Your task to perform on an android device: Open calendar and show me the third week of next month Image 0: 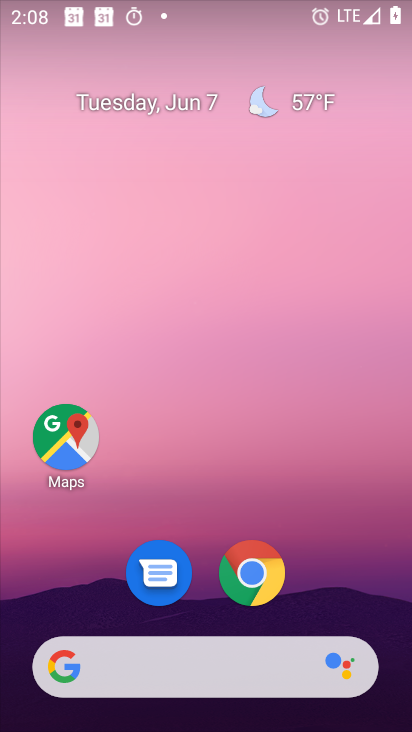
Step 0: drag from (341, 600) to (355, 122)
Your task to perform on an android device: Open calendar and show me the third week of next month Image 1: 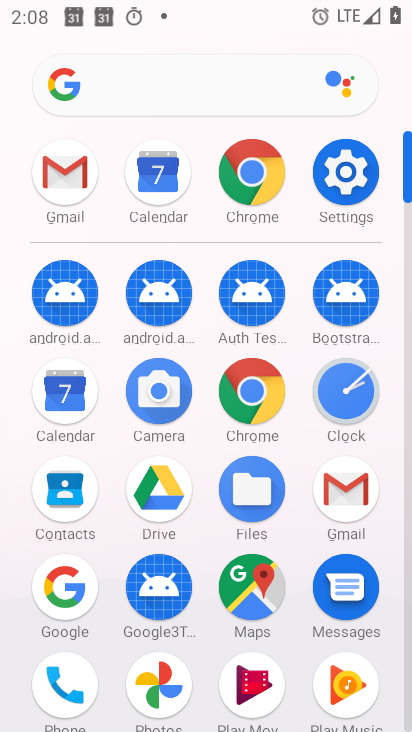
Step 1: click (148, 187)
Your task to perform on an android device: Open calendar and show me the third week of next month Image 2: 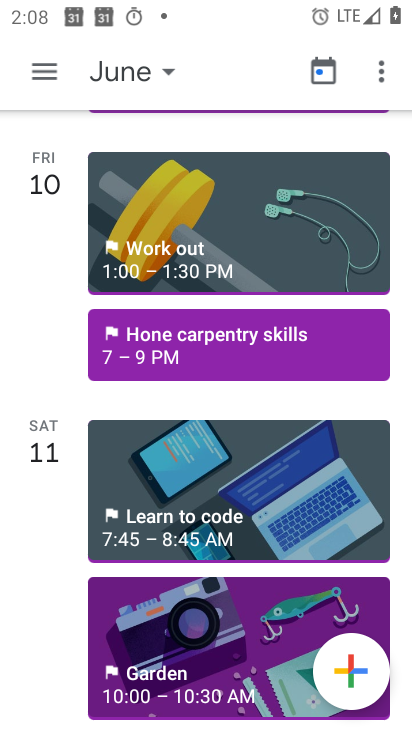
Step 2: click (133, 75)
Your task to perform on an android device: Open calendar and show me the third week of next month Image 3: 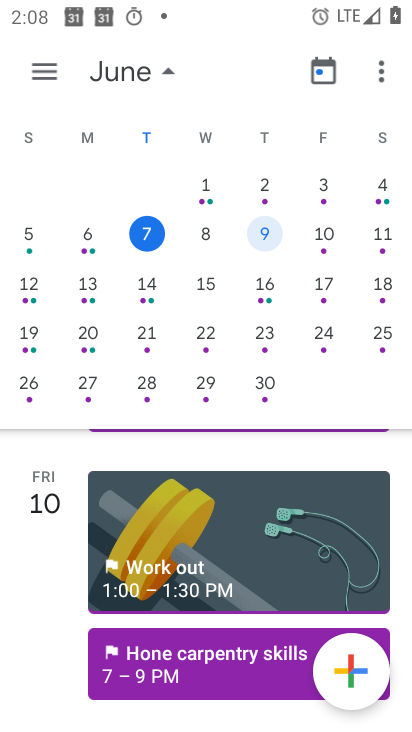
Step 3: drag from (368, 267) to (16, 275)
Your task to perform on an android device: Open calendar and show me the third week of next month Image 4: 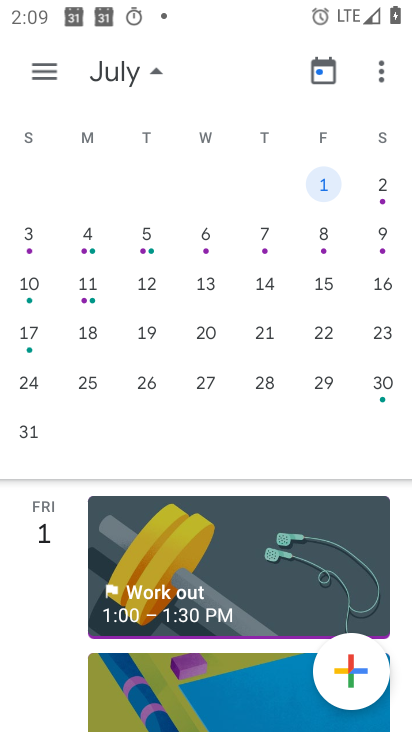
Step 4: click (266, 282)
Your task to perform on an android device: Open calendar and show me the third week of next month Image 5: 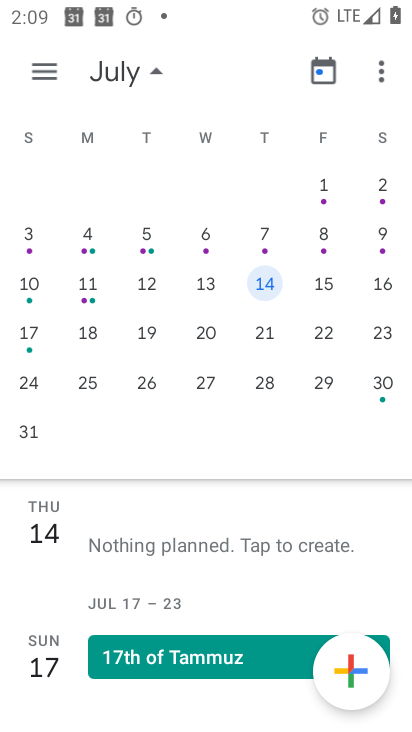
Step 5: task complete